Your task to perform on an android device: What's the weather? Image 0: 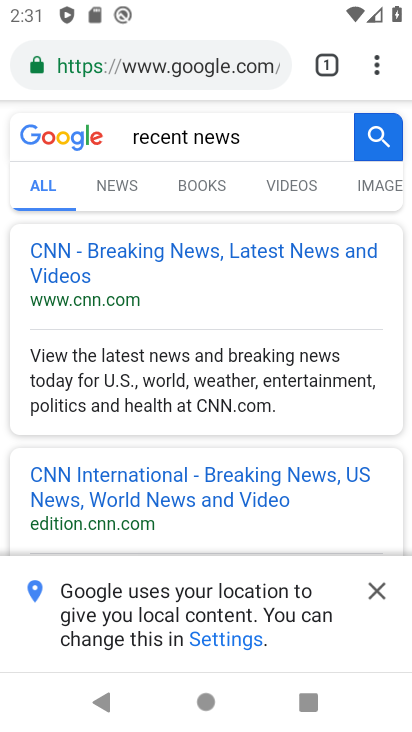
Step 0: click (172, 74)
Your task to perform on an android device: What's the weather? Image 1: 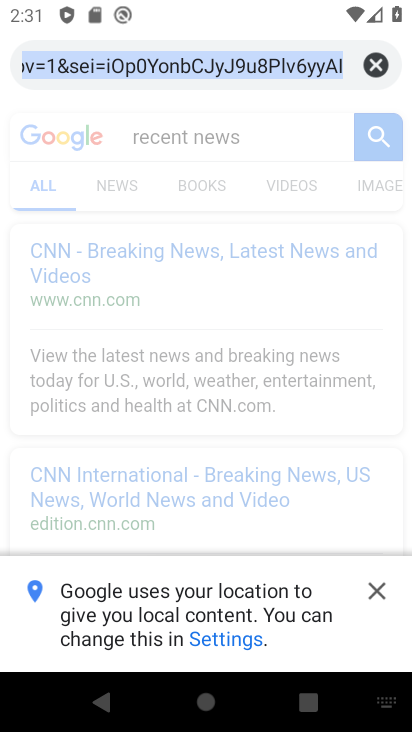
Step 1: type "whats the weather"
Your task to perform on an android device: What's the weather? Image 2: 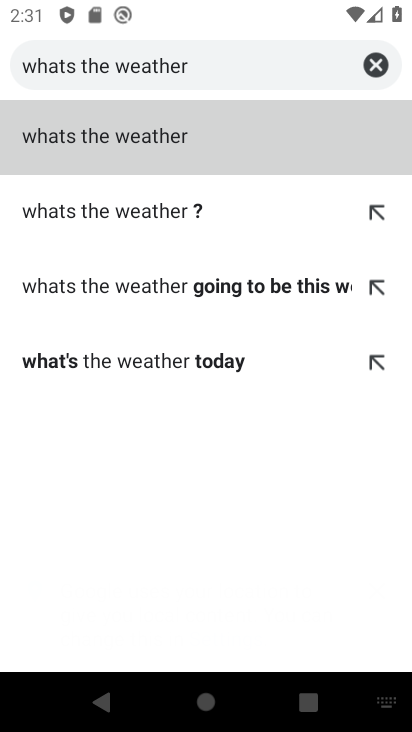
Step 2: click (166, 211)
Your task to perform on an android device: What's the weather? Image 3: 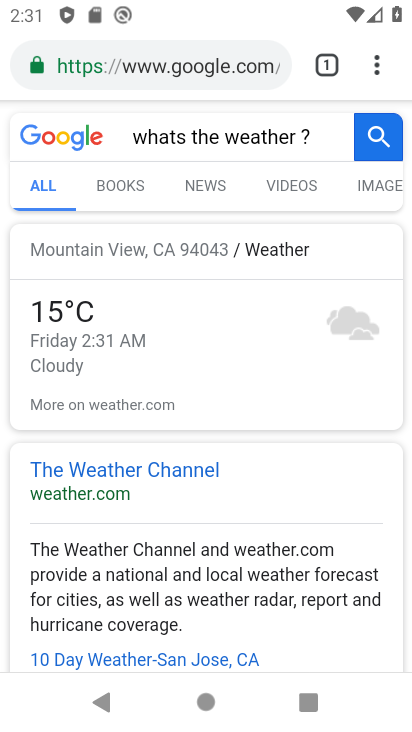
Step 3: task complete